Your task to perform on an android device: clear all cookies in the chrome app Image 0: 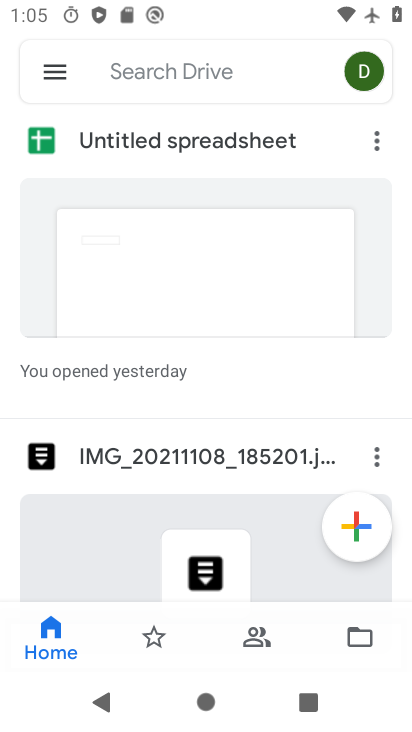
Step 0: press home button
Your task to perform on an android device: clear all cookies in the chrome app Image 1: 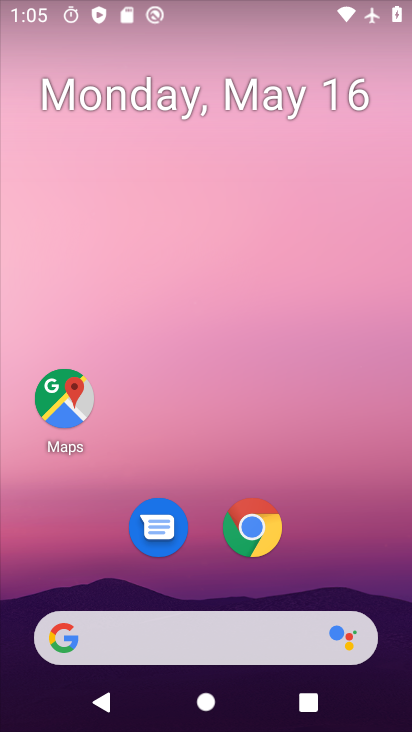
Step 1: click (252, 535)
Your task to perform on an android device: clear all cookies in the chrome app Image 2: 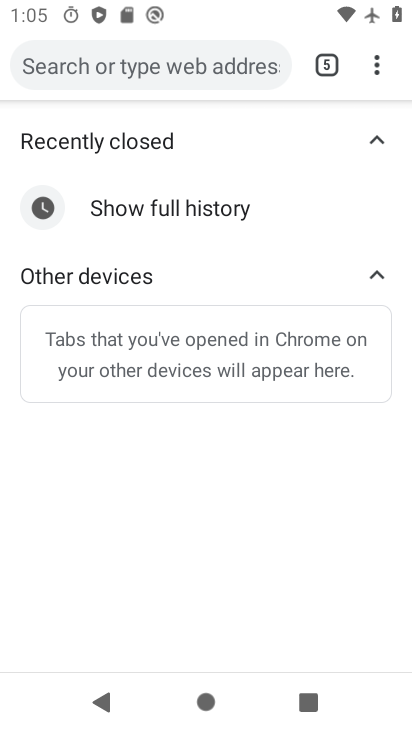
Step 2: drag from (376, 73) to (195, 542)
Your task to perform on an android device: clear all cookies in the chrome app Image 3: 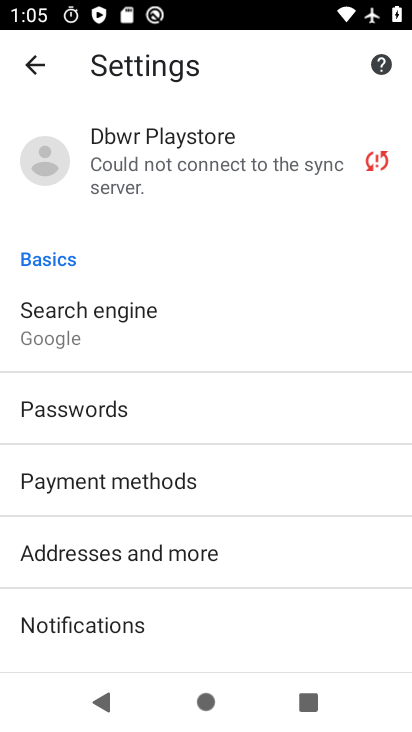
Step 3: drag from (180, 586) to (314, 228)
Your task to perform on an android device: clear all cookies in the chrome app Image 4: 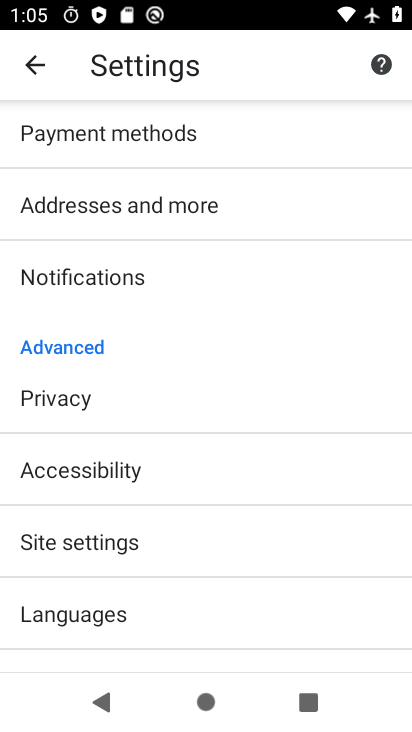
Step 4: click (74, 399)
Your task to perform on an android device: clear all cookies in the chrome app Image 5: 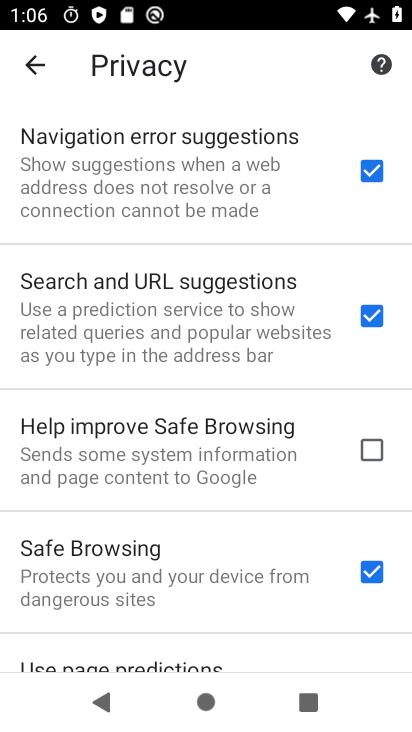
Step 5: drag from (178, 619) to (284, 272)
Your task to perform on an android device: clear all cookies in the chrome app Image 6: 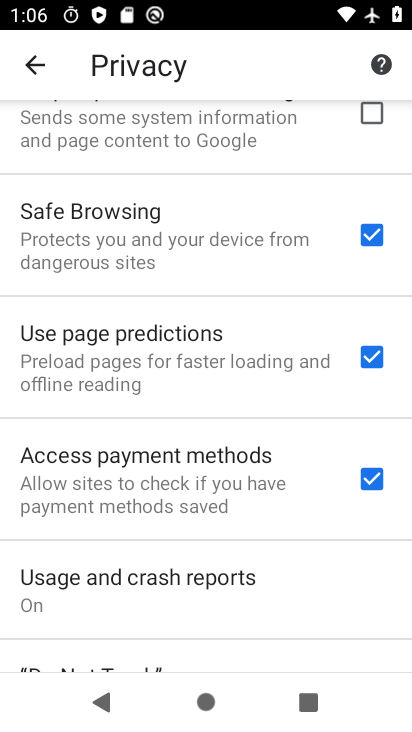
Step 6: drag from (168, 624) to (251, 296)
Your task to perform on an android device: clear all cookies in the chrome app Image 7: 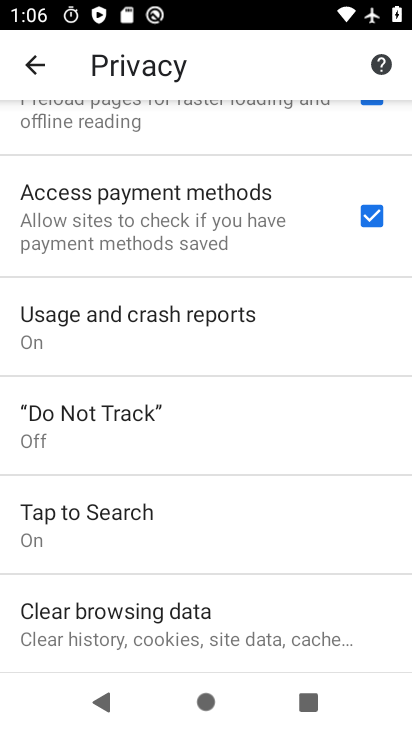
Step 7: drag from (170, 544) to (311, 143)
Your task to perform on an android device: clear all cookies in the chrome app Image 8: 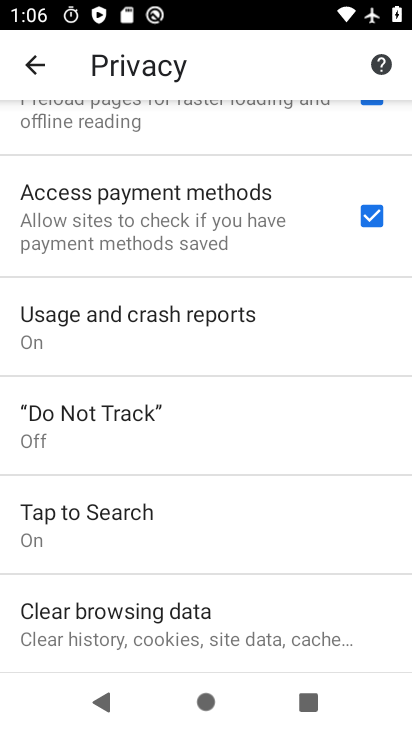
Step 8: click (147, 645)
Your task to perform on an android device: clear all cookies in the chrome app Image 9: 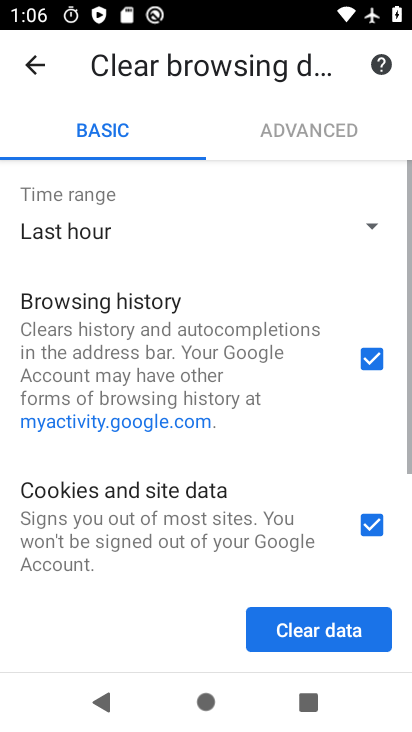
Step 9: drag from (212, 530) to (284, 216)
Your task to perform on an android device: clear all cookies in the chrome app Image 10: 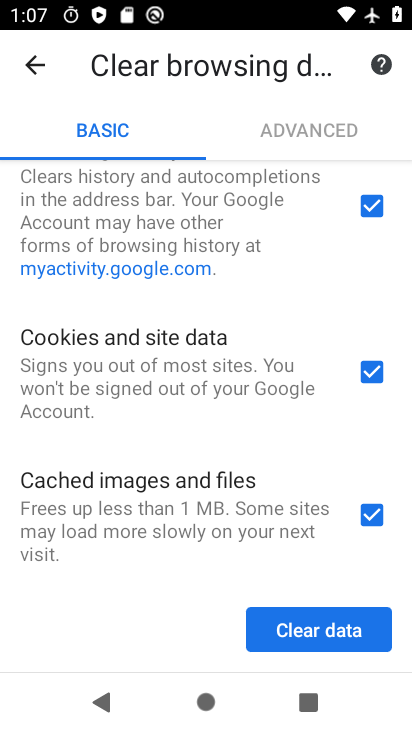
Step 10: click (293, 623)
Your task to perform on an android device: clear all cookies in the chrome app Image 11: 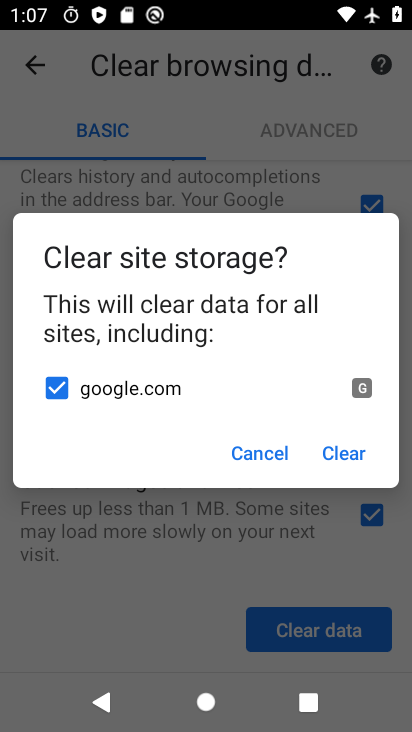
Step 11: click (332, 449)
Your task to perform on an android device: clear all cookies in the chrome app Image 12: 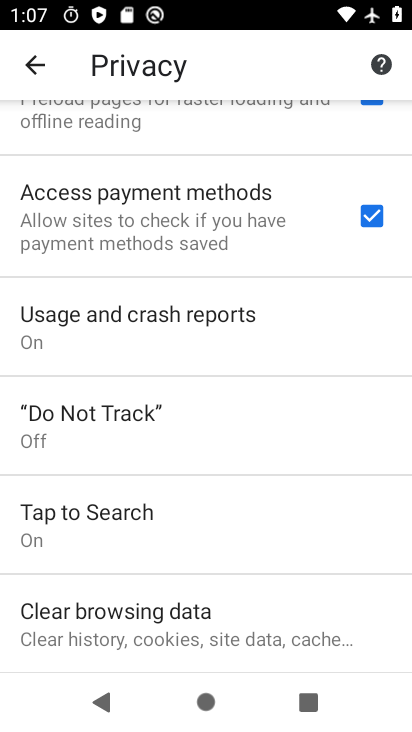
Step 12: task complete